Your task to perform on an android device: Open sound settings Image 0: 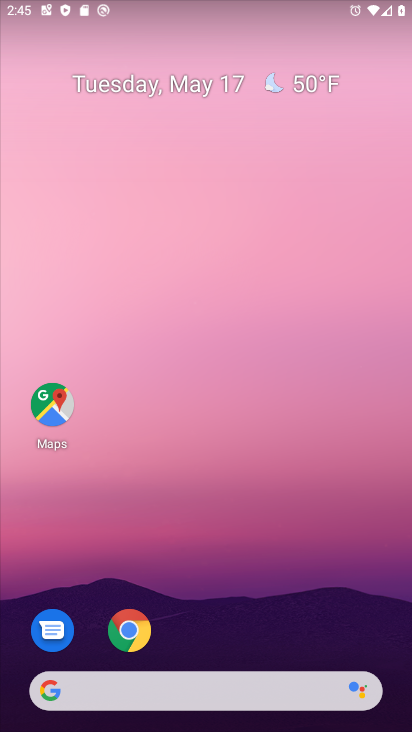
Step 0: drag from (224, 390) to (263, 247)
Your task to perform on an android device: Open sound settings Image 1: 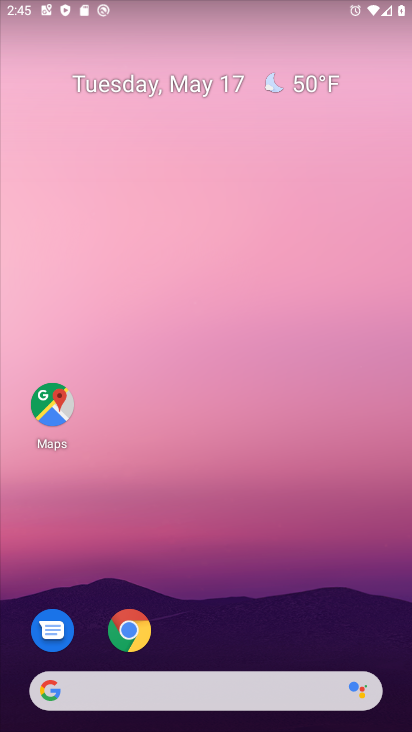
Step 1: drag from (227, 660) to (238, 321)
Your task to perform on an android device: Open sound settings Image 2: 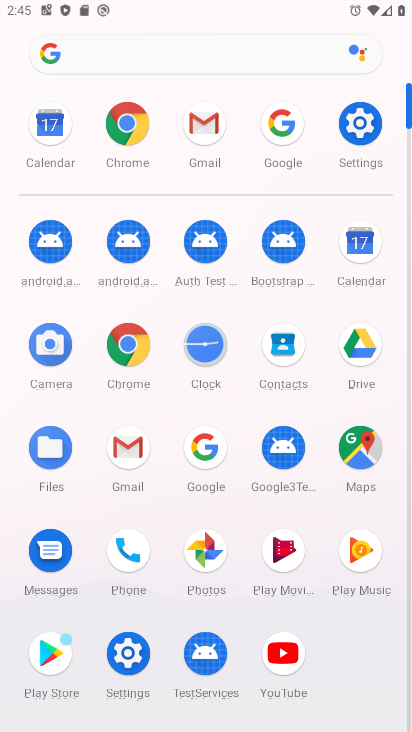
Step 2: click (352, 124)
Your task to perform on an android device: Open sound settings Image 3: 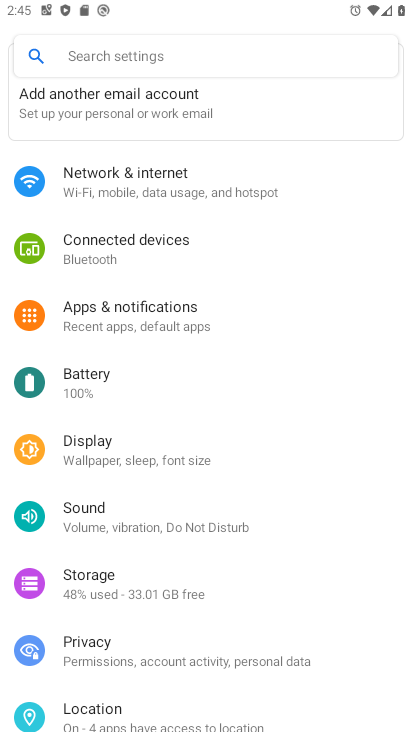
Step 3: click (122, 519)
Your task to perform on an android device: Open sound settings Image 4: 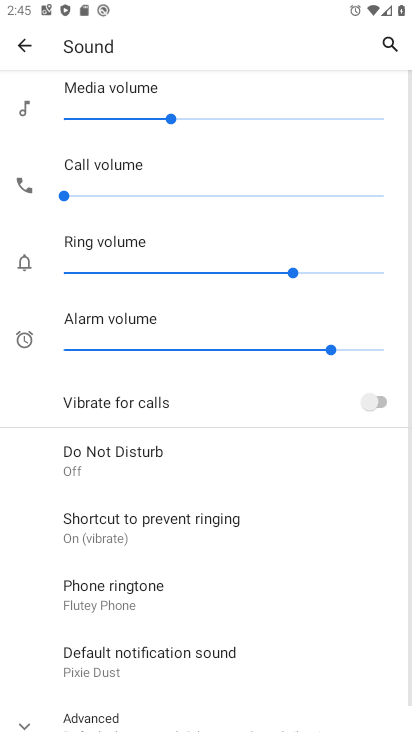
Step 4: drag from (133, 724) to (205, 413)
Your task to perform on an android device: Open sound settings Image 5: 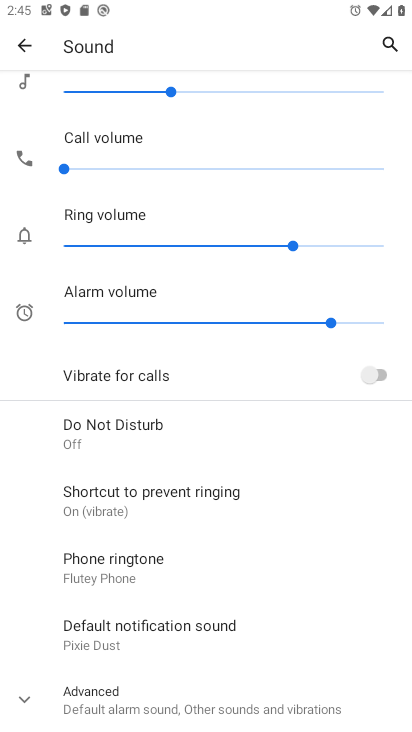
Step 5: click (94, 685)
Your task to perform on an android device: Open sound settings Image 6: 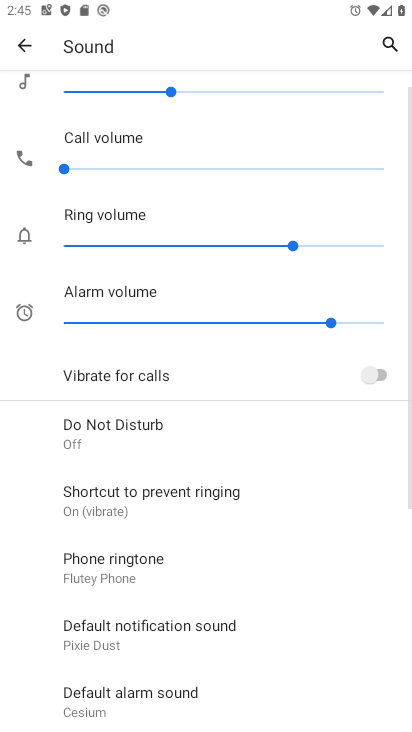
Step 6: task complete